Your task to perform on an android device: toggle data saver in the chrome app Image 0: 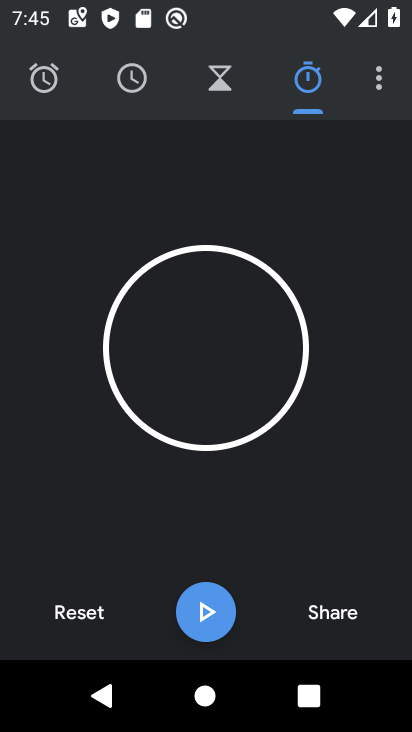
Step 0: press home button
Your task to perform on an android device: toggle data saver in the chrome app Image 1: 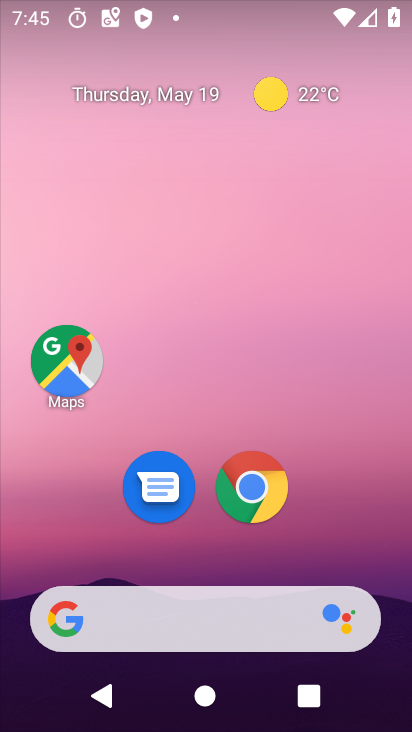
Step 1: click (264, 486)
Your task to perform on an android device: toggle data saver in the chrome app Image 2: 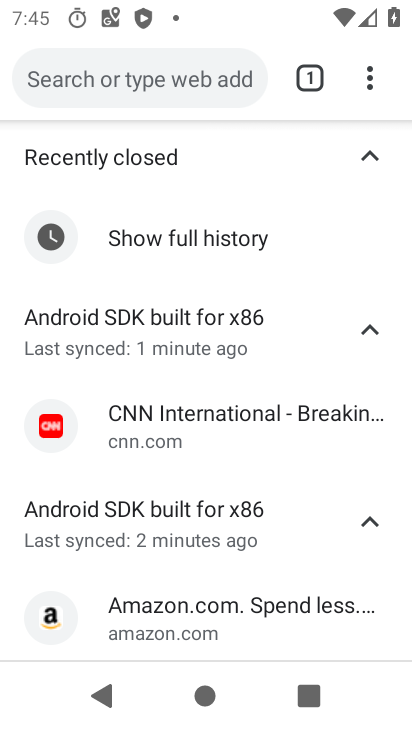
Step 2: drag from (369, 80) to (197, 524)
Your task to perform on an android device: toggle data saver in the chrome app Image 3: 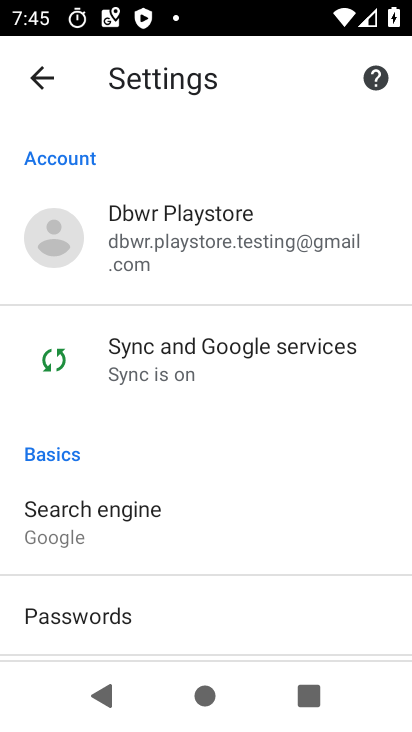
Step 3: drag from (207, 574) to (289, 305)
Your task to perform on an android device: toggle data saver in the chrome app Image 4: 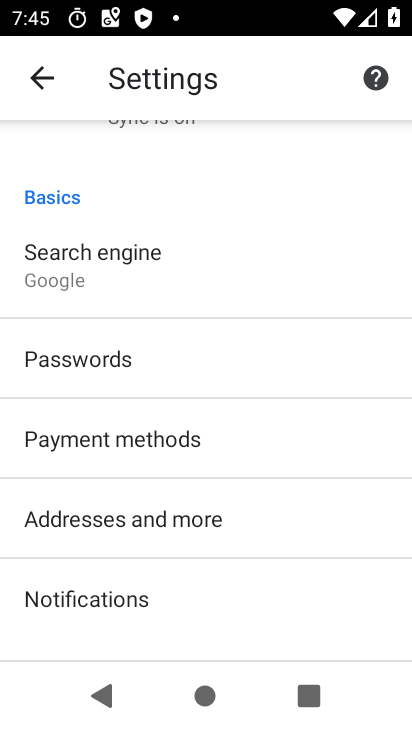
Step 4: drag from (287, 381) to (334, 157)
Your task to perform on an android device: toggle data saver in the chrome app Image 5: 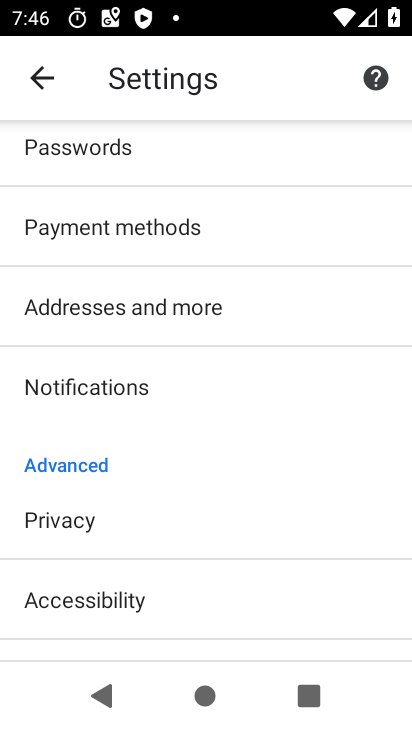
Step 5: drag from (217, 559) to (356, 158)
Your task to perform on an android device: toggle data saver in the chrome app Image 6: 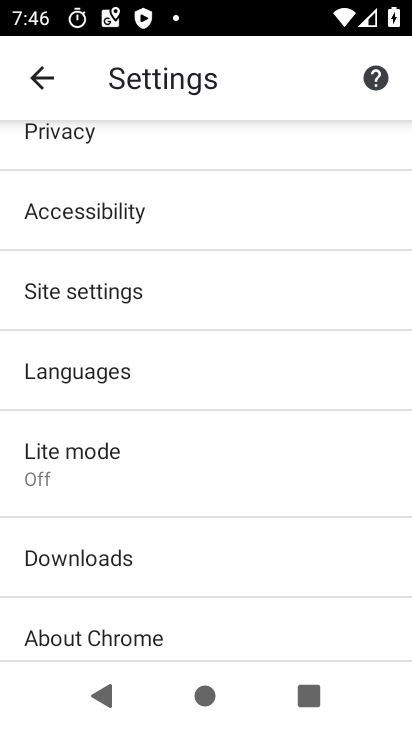
Step 6: click (82, 455)
Your task to perform on an android device: toggle data saver in the chrome app Image 7: 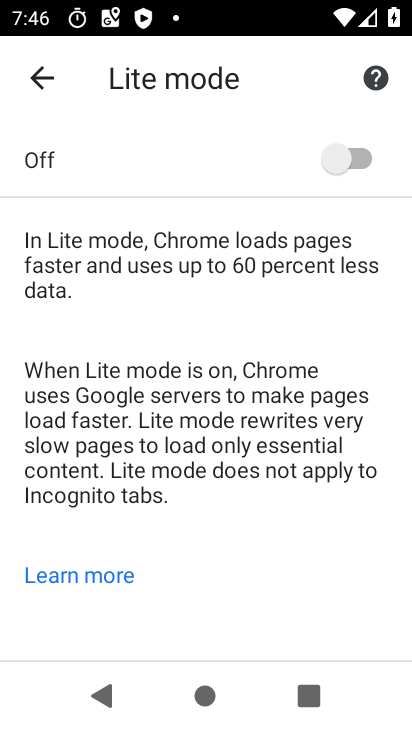
Step 7: click (363, 161)
Your task to perform on an android device: toggle data saver in the chrome app Image 8: 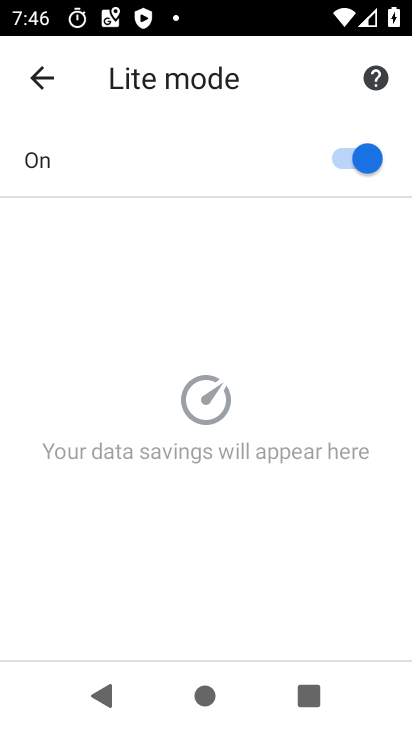
Step 8: task complete